Your task to perform on an android device: turn off notifications settings in the gmail app Image 0: 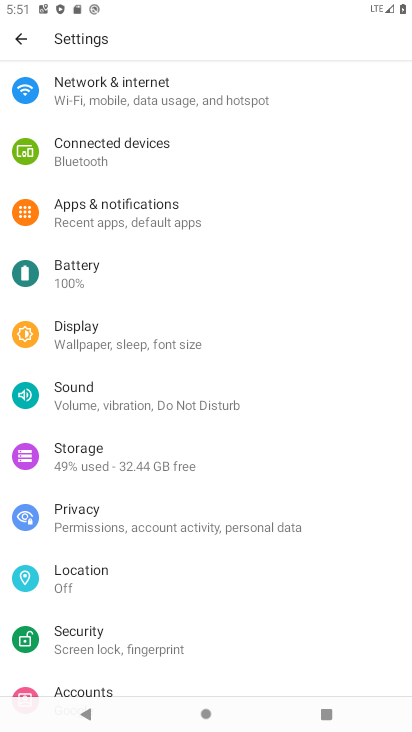
Step 0: press home button
Your task to perform on an android device: turn off notifications settings in the gmail app Image 1: 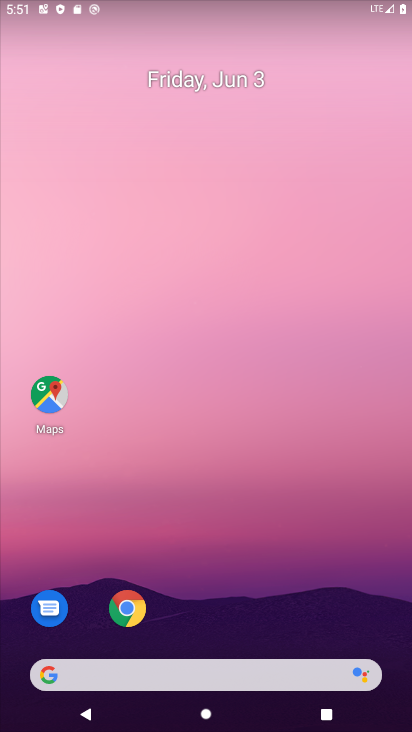
Step 1: drag from (292, 544) to (276, 292)
Your task to perform on an android device: turn off notifications settings in the gmail app Image 2: 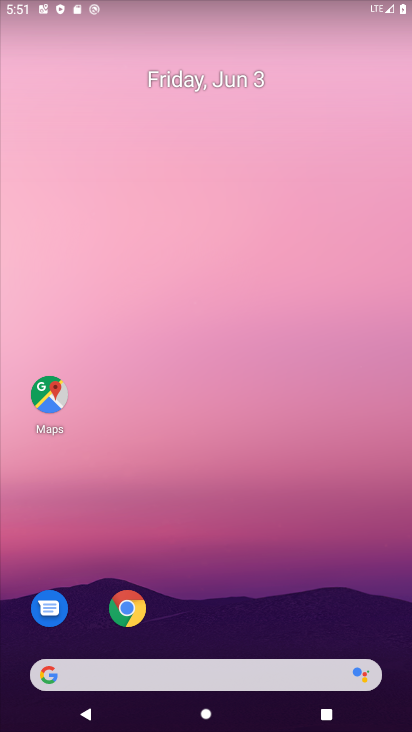
Step 2: drag from (256, 567) to (285, 186)
Your task to perform on an android device: turn off notifications settings in the gmail app Image 3: 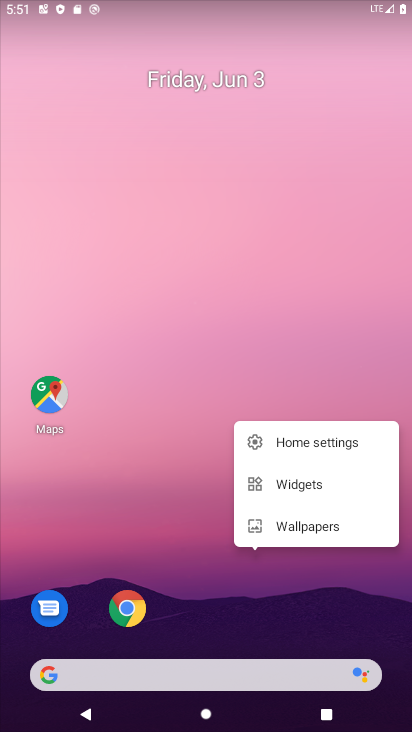
Step 3: click (285, 186)
Your task to perform on an android device: turn off notifications settings in the gmail app Image 4: 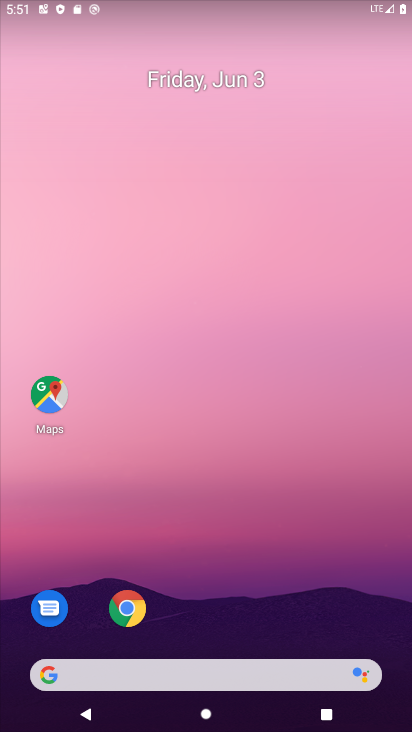
Step 4: drag from (300, 585) to (332, 4)
Your task to perform on an android device: turn off notifications settings in the gmail app Image 5: 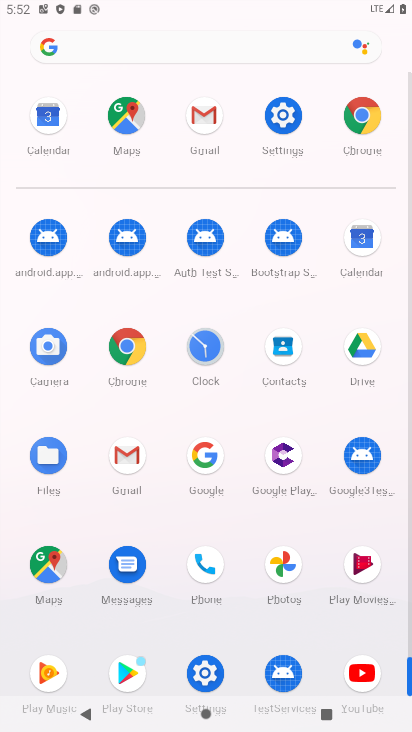
Step 5: click (215, 116)
Your task to perform on an android device: turn off notifications settings in the gmail app Image 6: 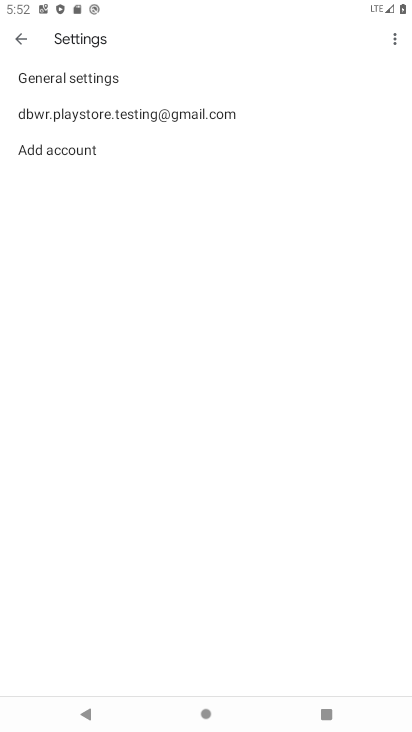
Step 6: click (136, 80)
Your task to perform on an android device: turn off notifications settings in the gmail app Image 7: 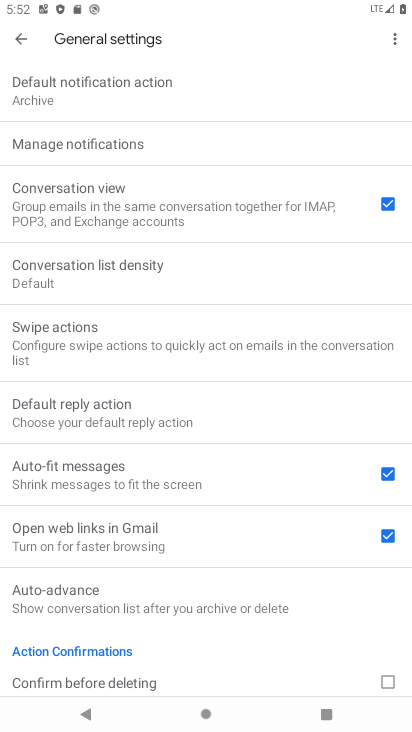
Step 7: click (132, 132)
Your task to perform on an android device: turn off notifications settings in the gmail app Image 8: 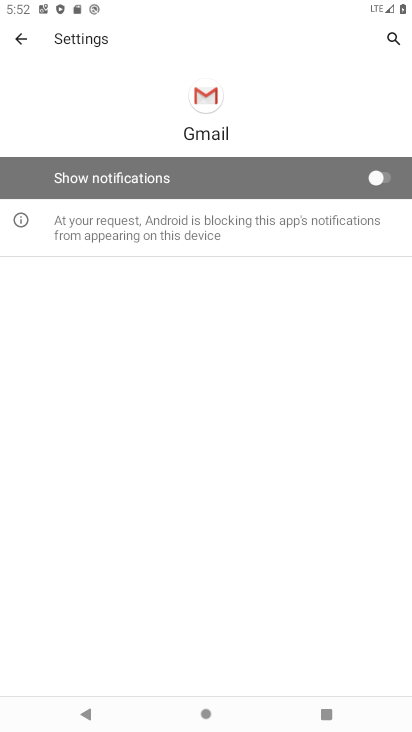
Step 8: task complete